Your task to perform on an android device: Open battery settings Image 0: 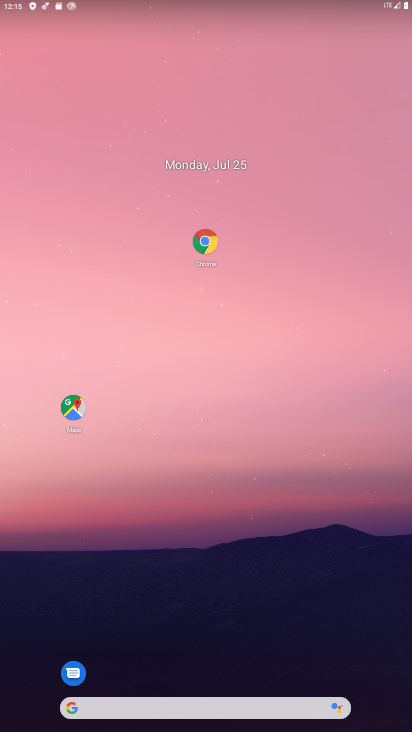
Step 0: drag from (243, 700) to (305, 18)
Your task to perform on an android device: Open battery settings Image 1: 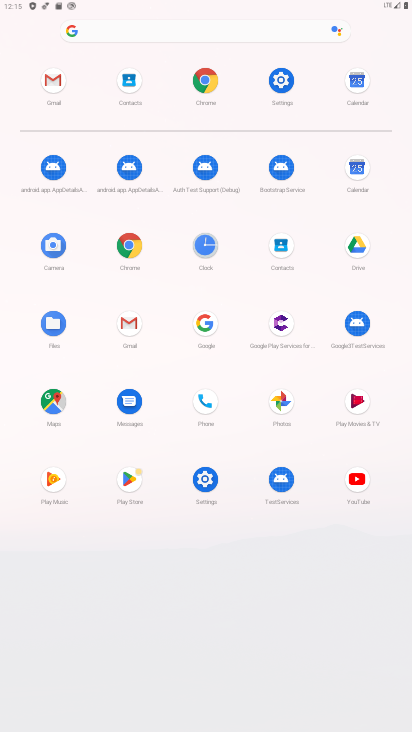
Step 1: click (277, 85)
Your task to perform on an android device: Open battery settings Image 2: 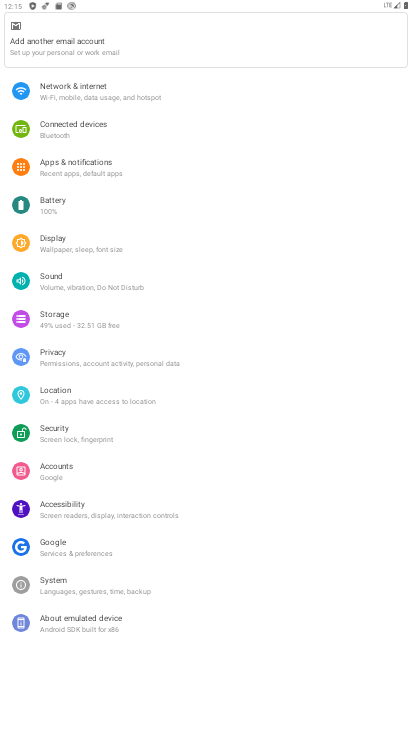
Step 2: click (65, 209)
Your task to perform on an android device: Open battery settings Image 3: 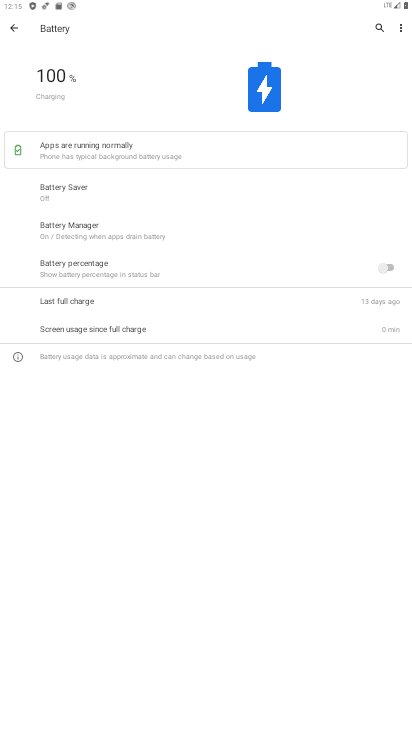
Step 3: task complete